Your task to perform on an android device: Open Google Image 0: 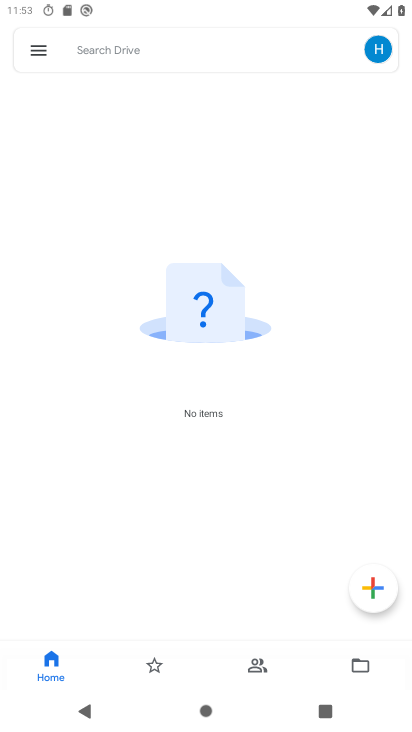
Step 0: press home button
Your task to perform on an android device: Open Google Image 1: 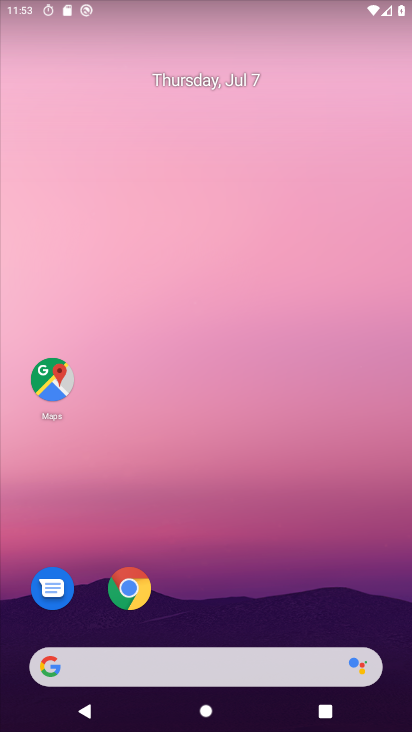
Step 1: drag from (219, 669) to (282, 0)
Your task to perform on an android device: Open Google Image 2: 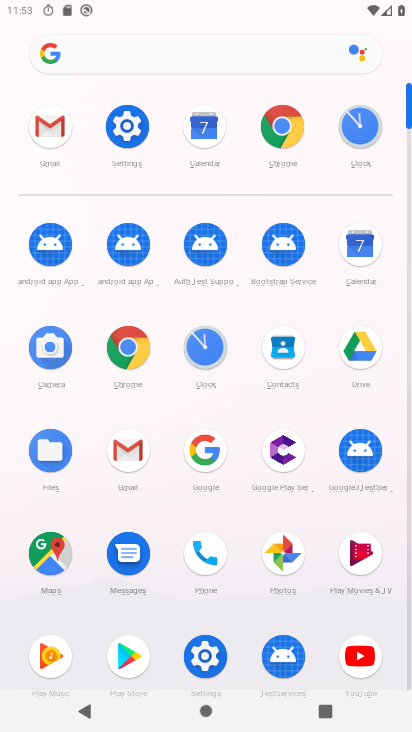
Step 2: click (210, 459)
Your task to perform on an android device: Open Google Image 3: 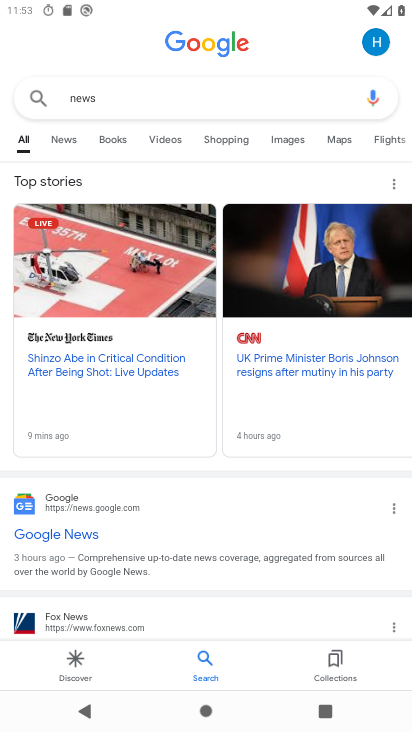
Step 3: task complete